Your task to perform on an android device: Add usb-c to usb-a to the cart on amazon Image 0: 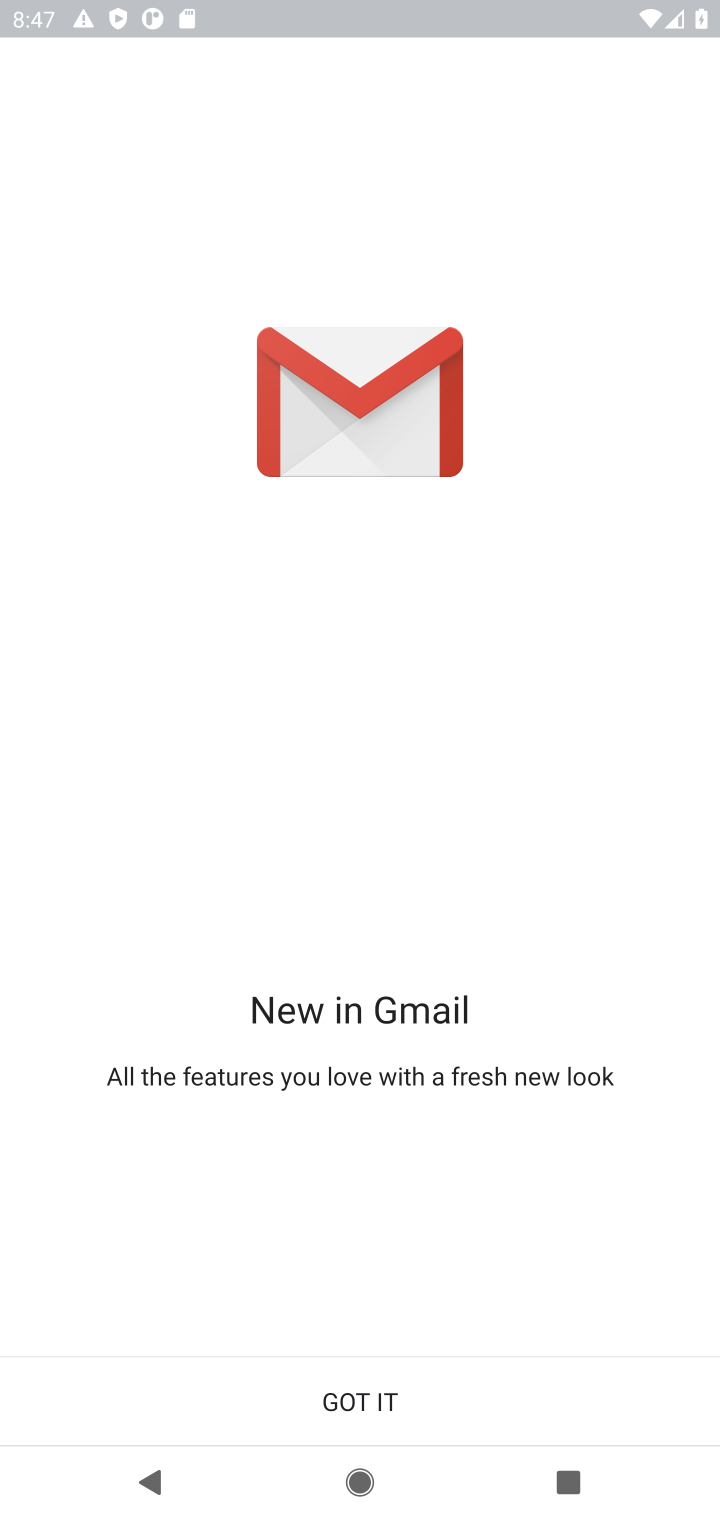
Step 0: press home button
Your task to perform on an android device: Add usb-c to usb-a to the cart on amazon Image 1: 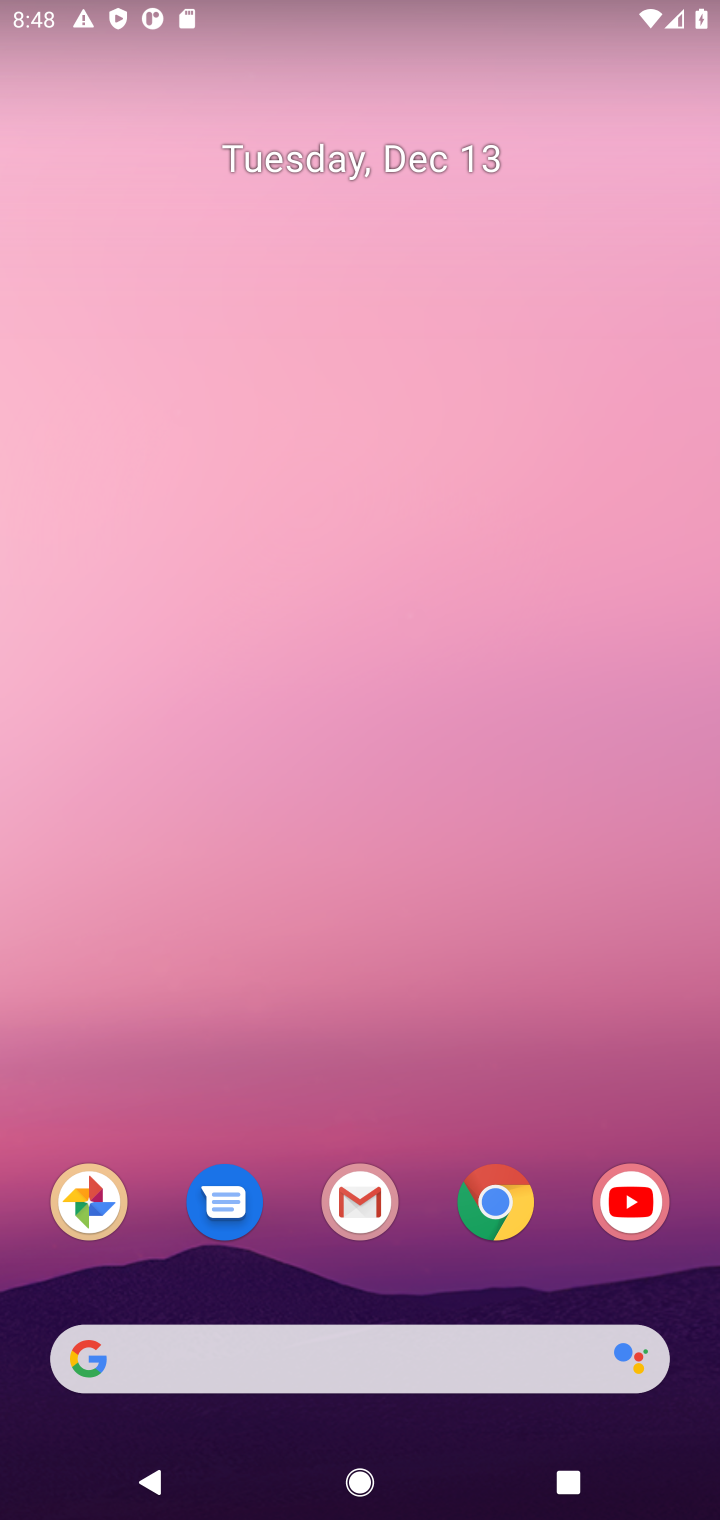
Step 1: click (511, 1218)
Your task to perform on an android device: Add usb-c to usb-a to the cart on amazon Image 2: 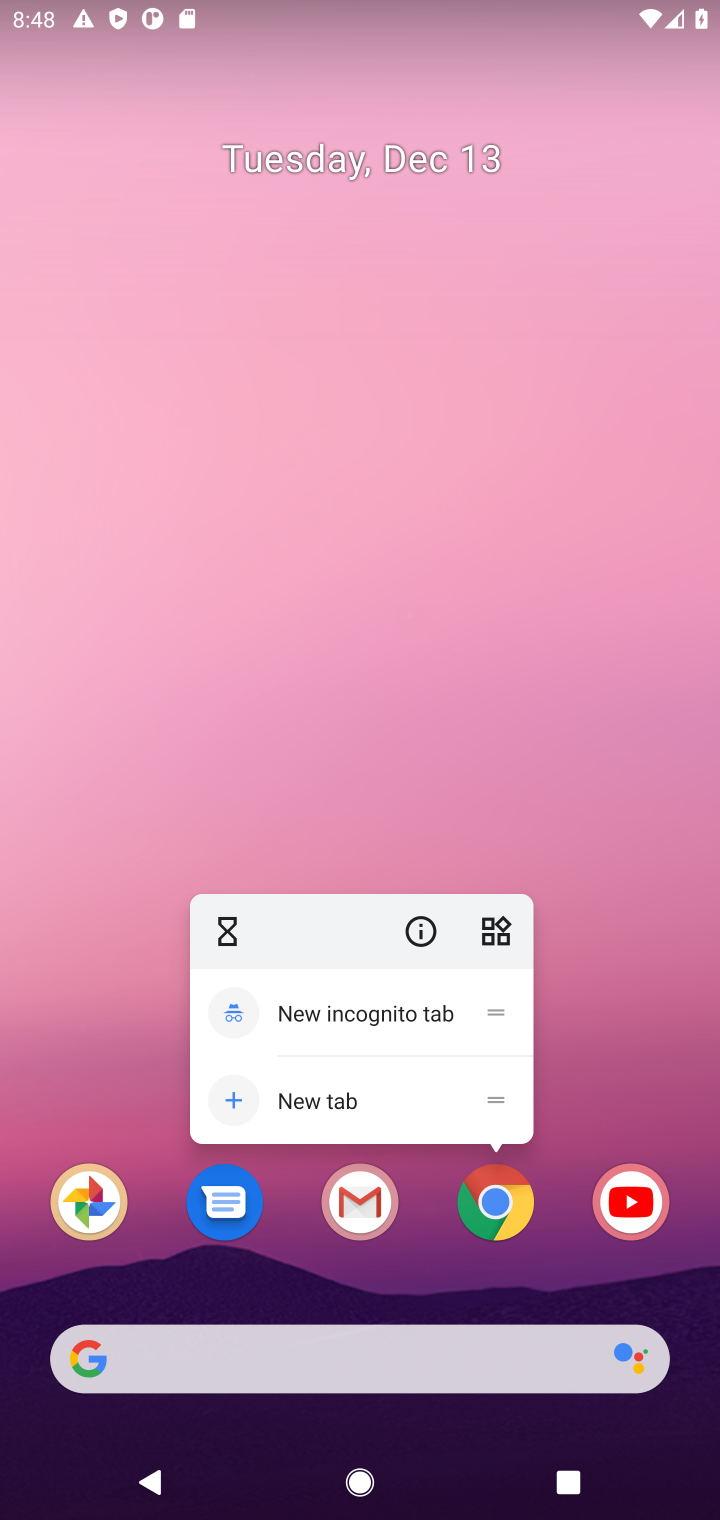
Step 2: click (499, 1216)
Your task to perform on an android device: Add usb-c to usb-a to the cart on amazon Image 3: 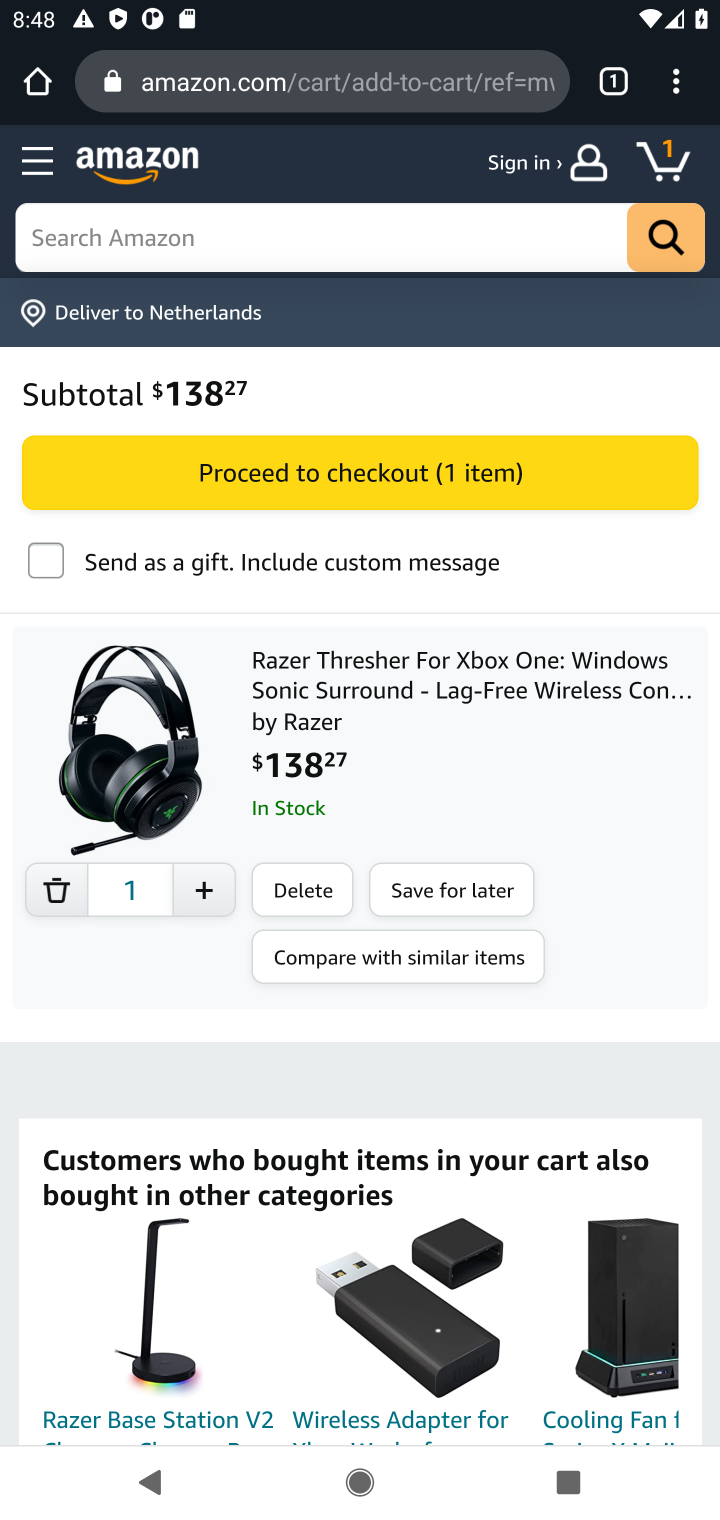
Step 3: click (83, 232)
Your task to perform on an android device: Add usb-c to usb-a to the cart on amazon Image 4: 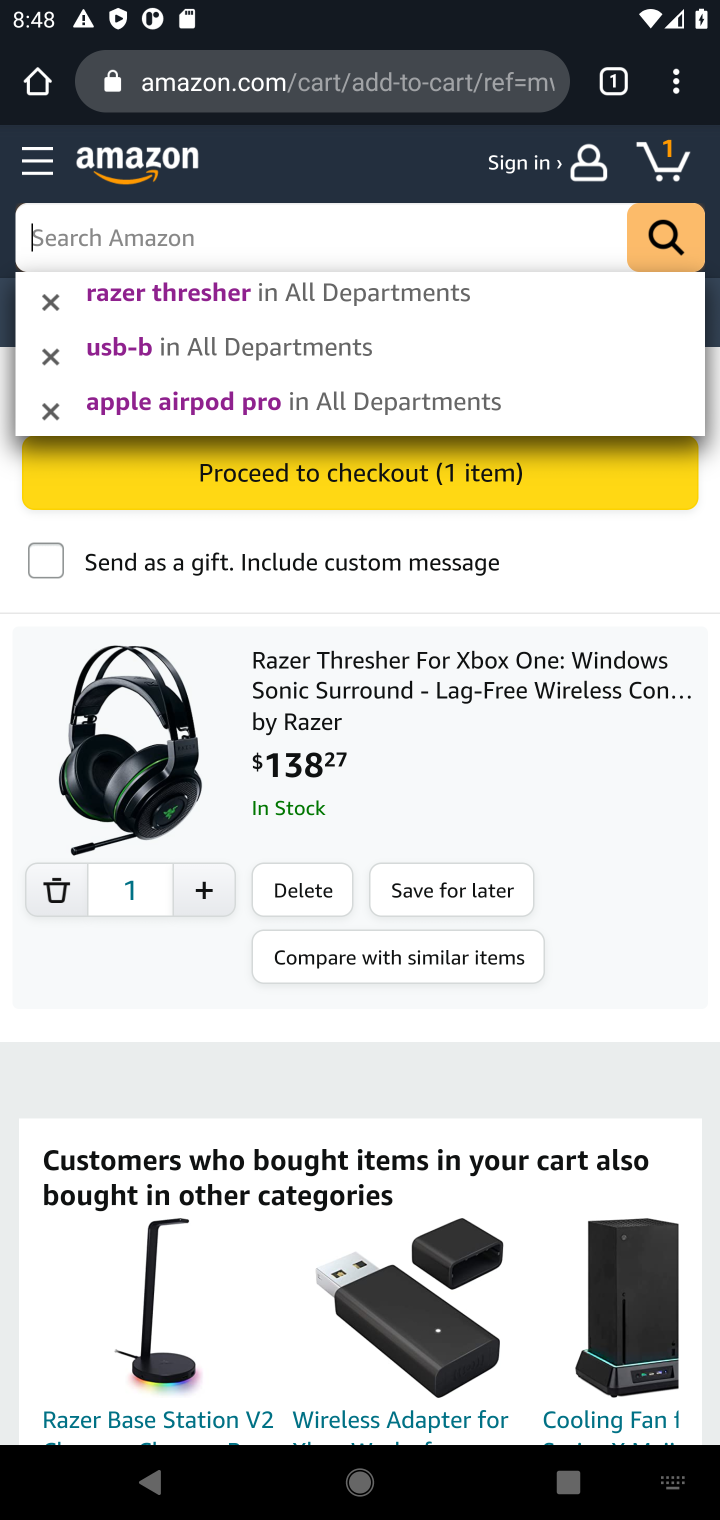
Step 4: type "usb-c to usb-a"
Your task to perform on an android device: Add usb-c to usb-a to the cart on amazon Image 5: 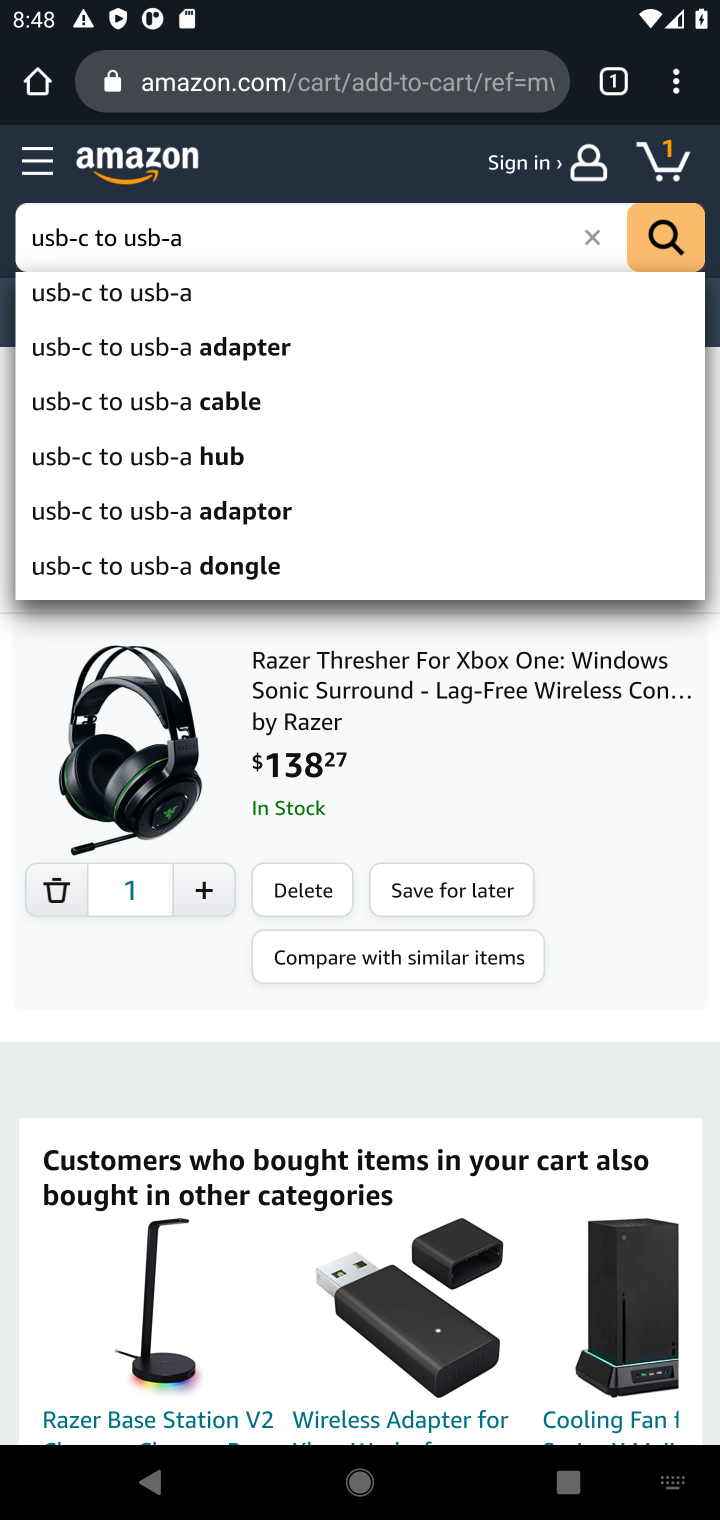
Step 5: click (175, 293)
Your task to perform on an android device: Add usb-c to usb-a to the cart on amazon Image 6: 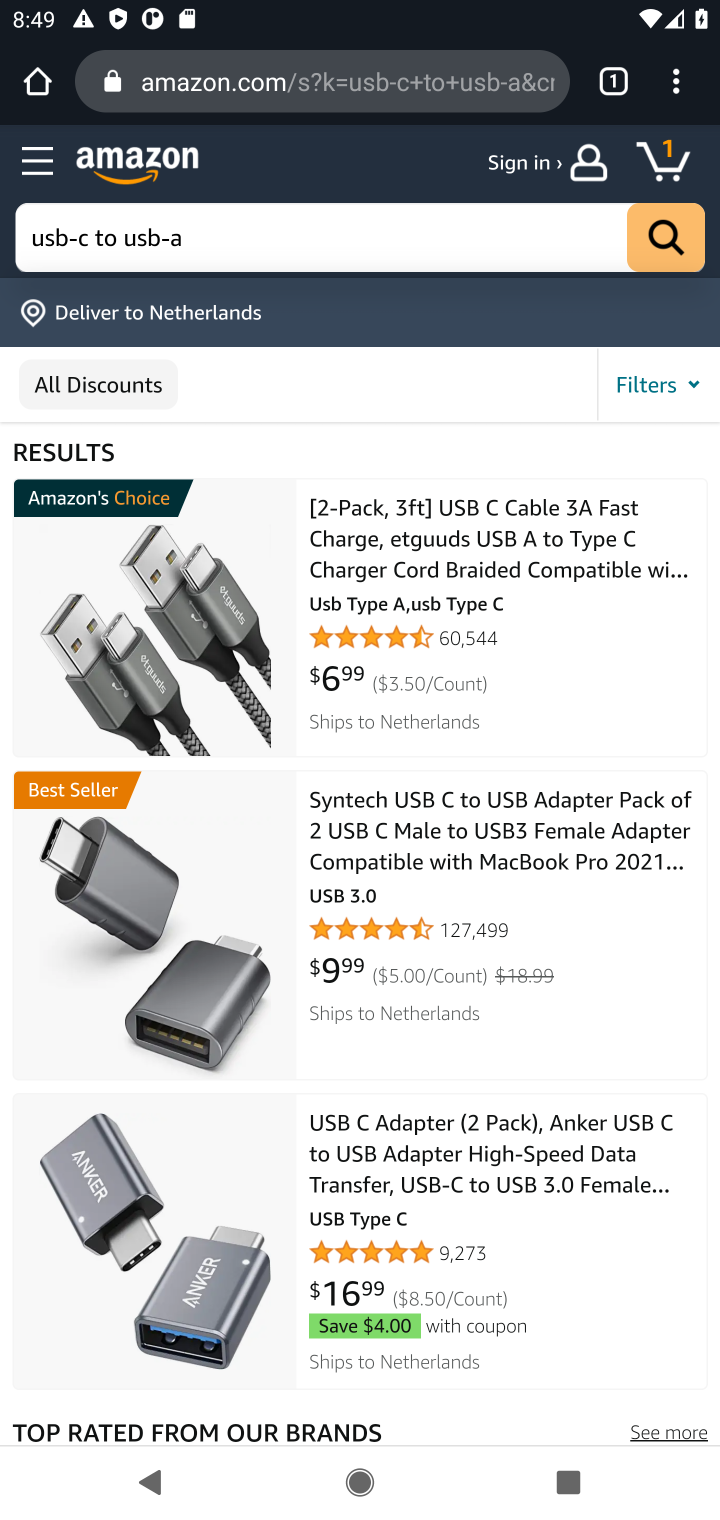
Step 6: drag from (362, 722) to (377, 520)
Your task to perform on an android device: Add usb-c to usb-a to the cart on amazon Image 7: 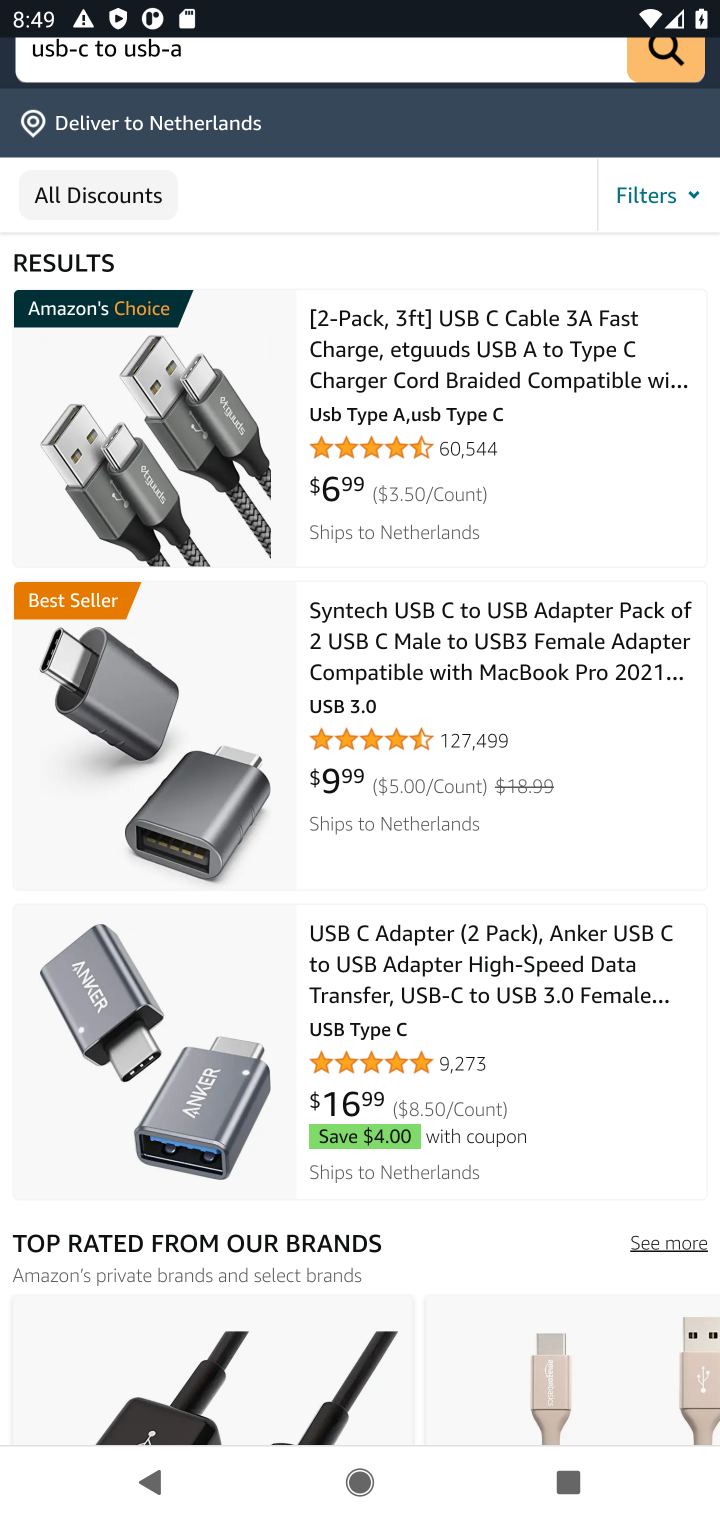
Step 7: drag from (389, 964) to (417, 609)
Your task to perform on an android device: Add usb-c to usb-a to the cart on amazon Image 8: 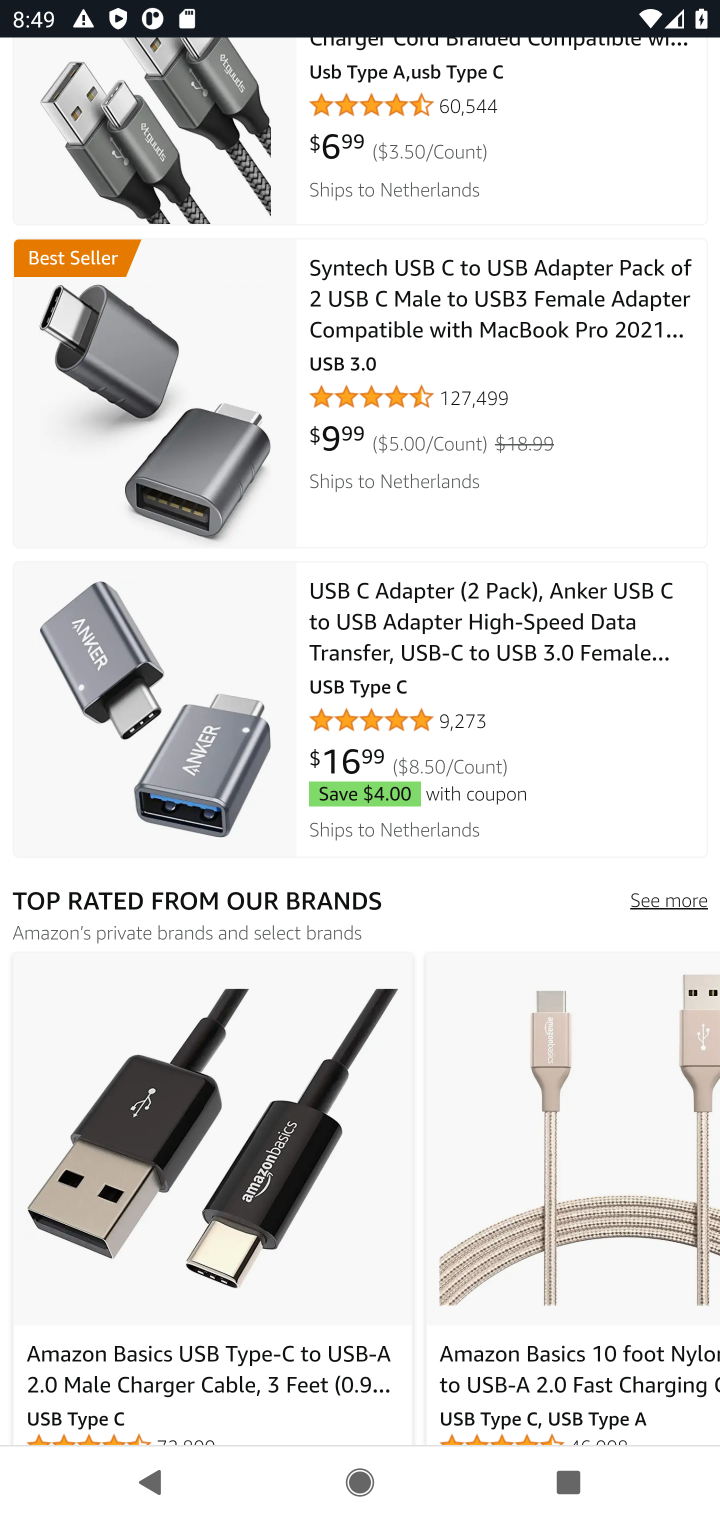
Step 8: drag from (365, 1065) to (375, 518)
Your task to perform on an android device: Add usb-c to usb-a to the cart on amazon Image 9: 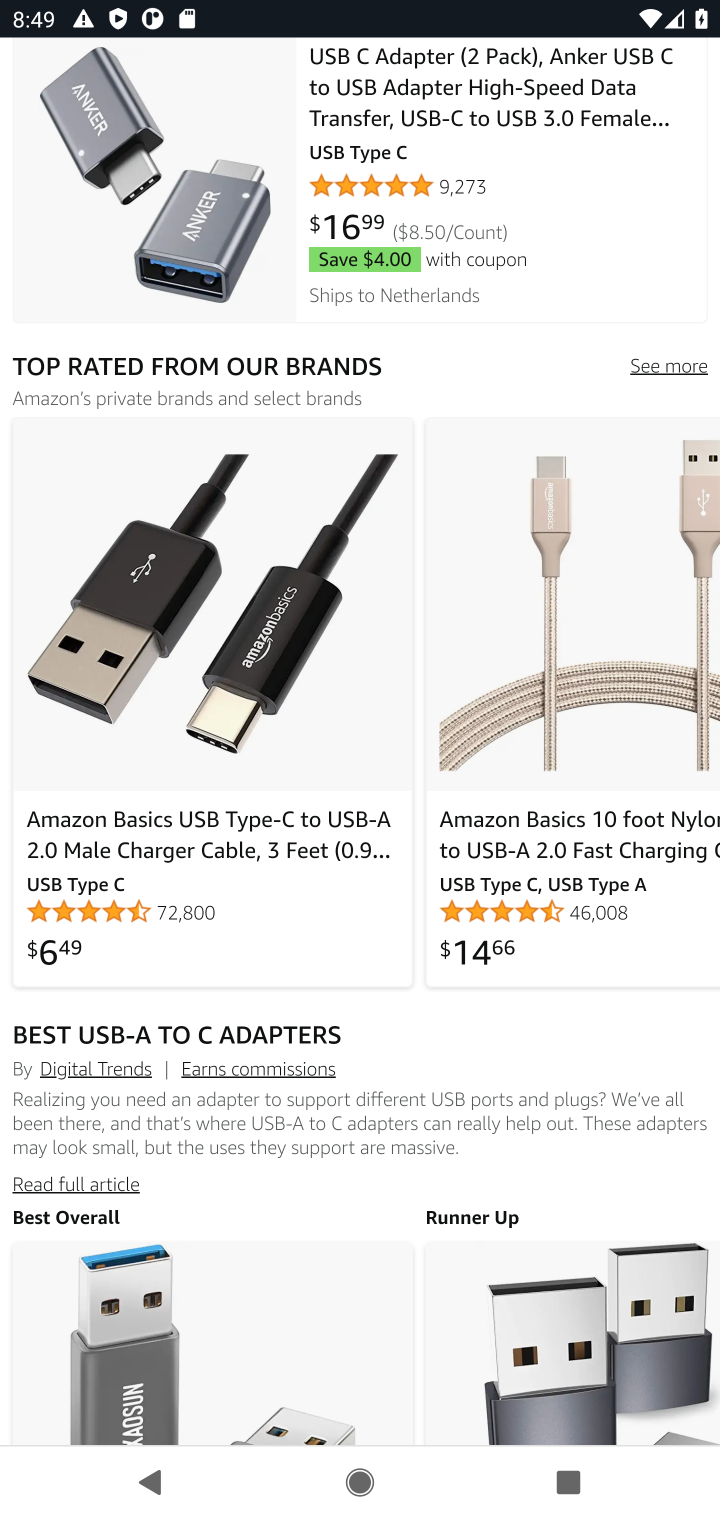
Step 9: drag from (319, 1123) to (317, 437)
Your task to perform on an android device: Add usb-c to usb-a to the cart on amazon Image 10: 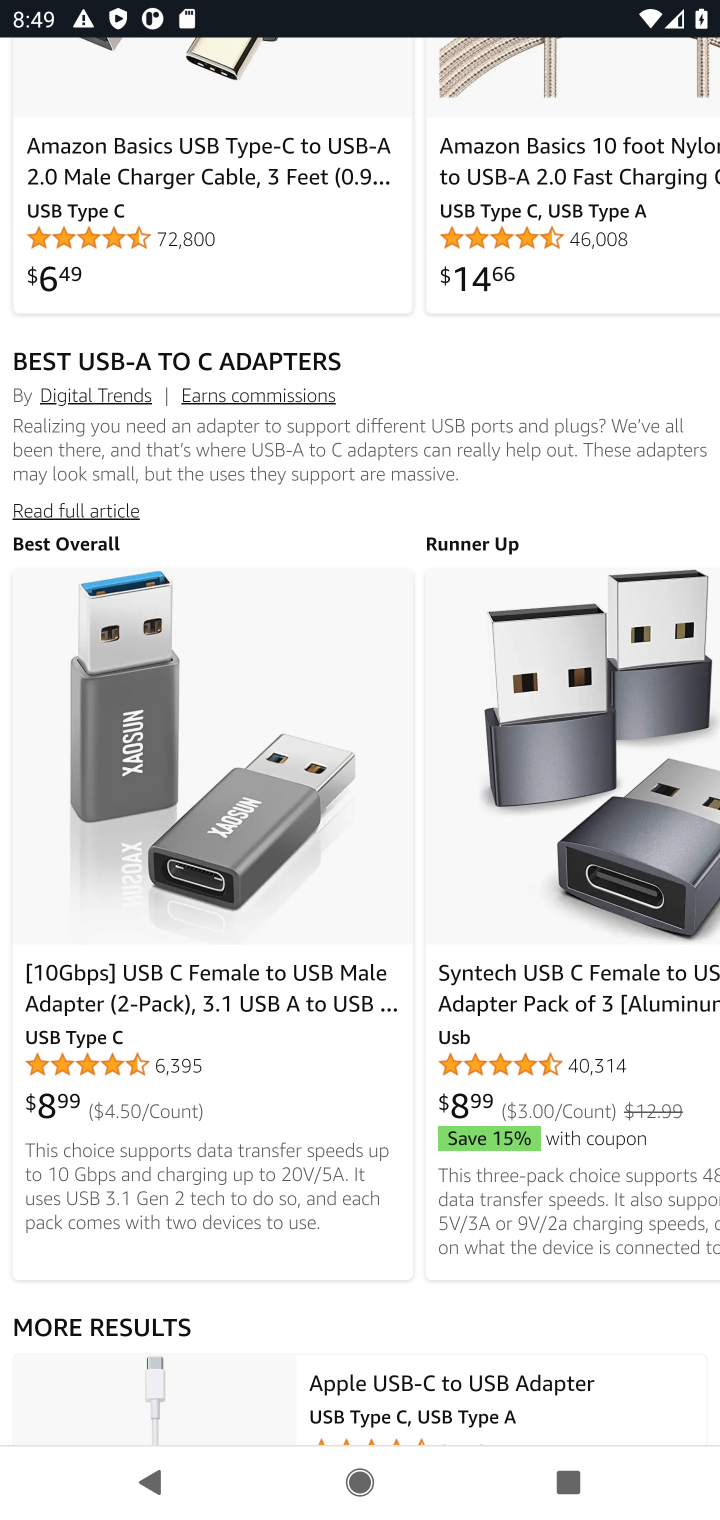
Step 10: drag from (270, 956) to (277, 453)
Your task to perform on an android device: Add usb-c to usb-a to the cart on amazon Image 11: 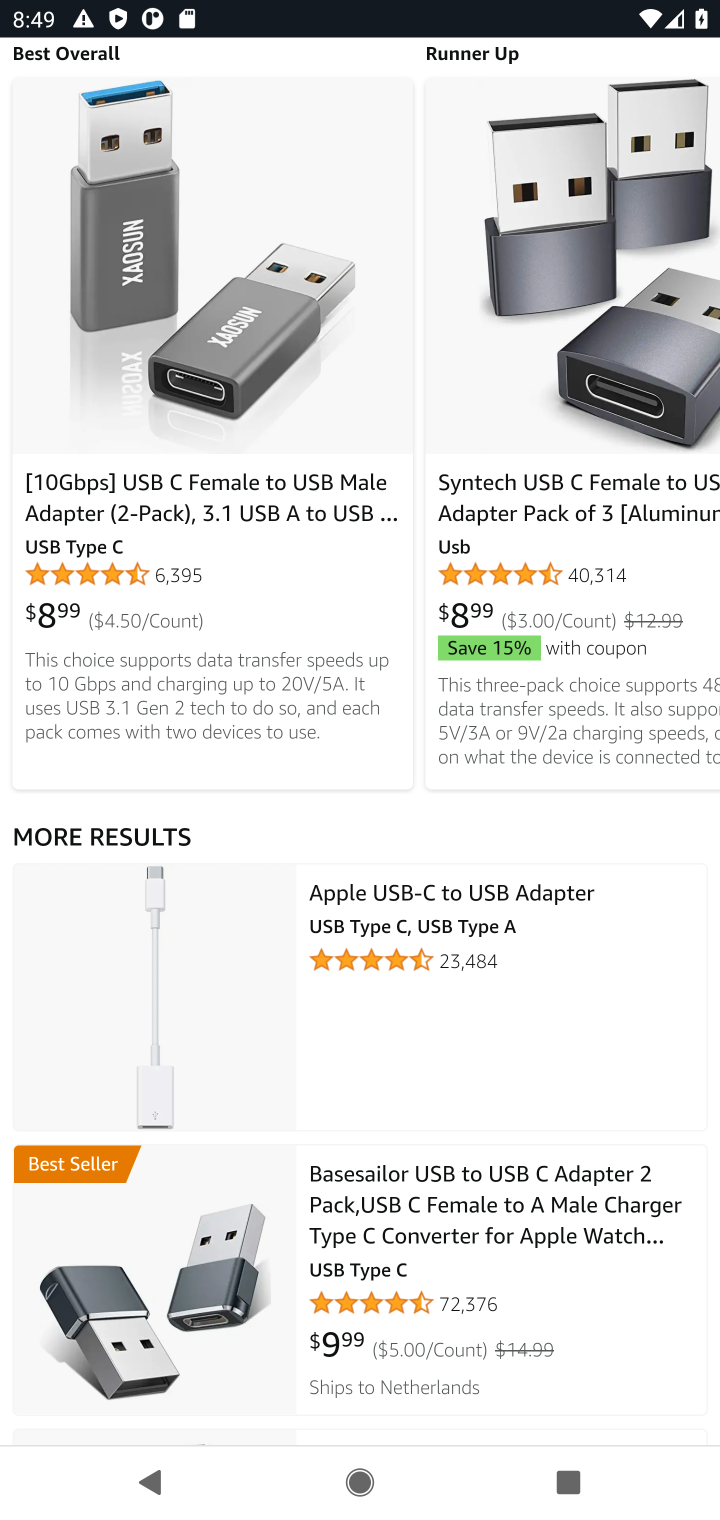
Step 11: drag from (281, 1273) to (288, 872)
Your task to perform on an android device: Add usb-c to usb-a to the cart on amazon Image 12: 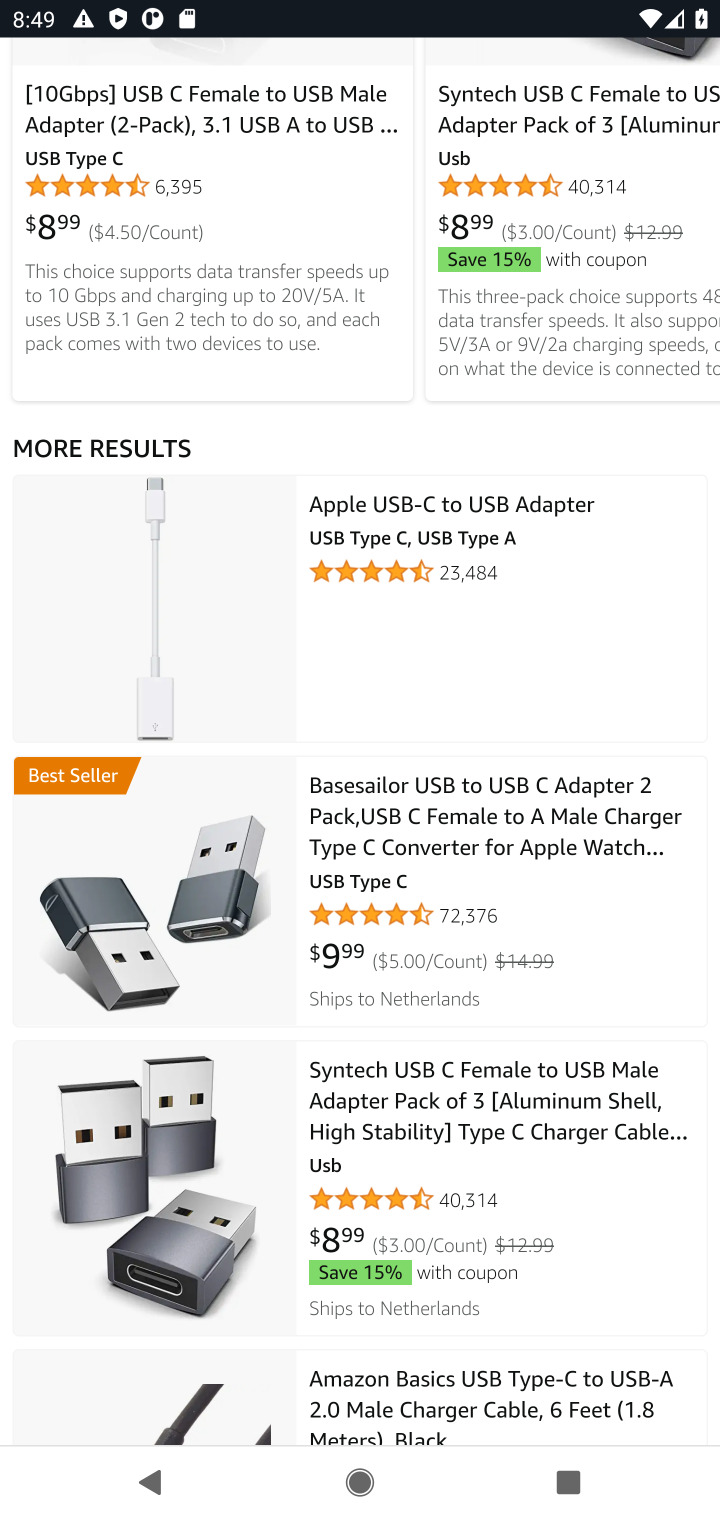
Step 12: drag from (291, 1196) to (295, 646)
Your task to perform on an android device: Add usb-c to usb-a to the cart on amazon Image 13: 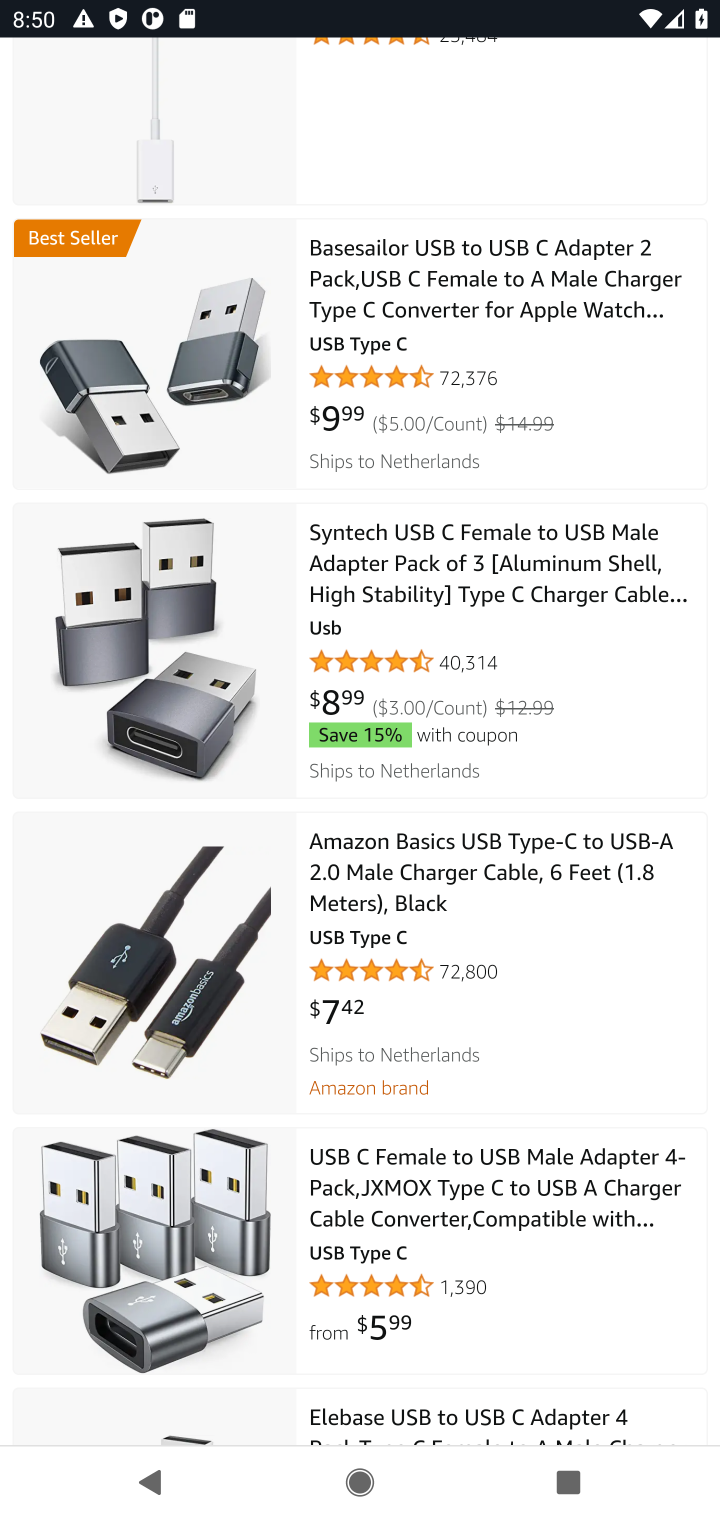
Step 13: click (370, 874)
Your task to perform on an android device: Add usb-c to usb-a to the cart on amazon Image 14: 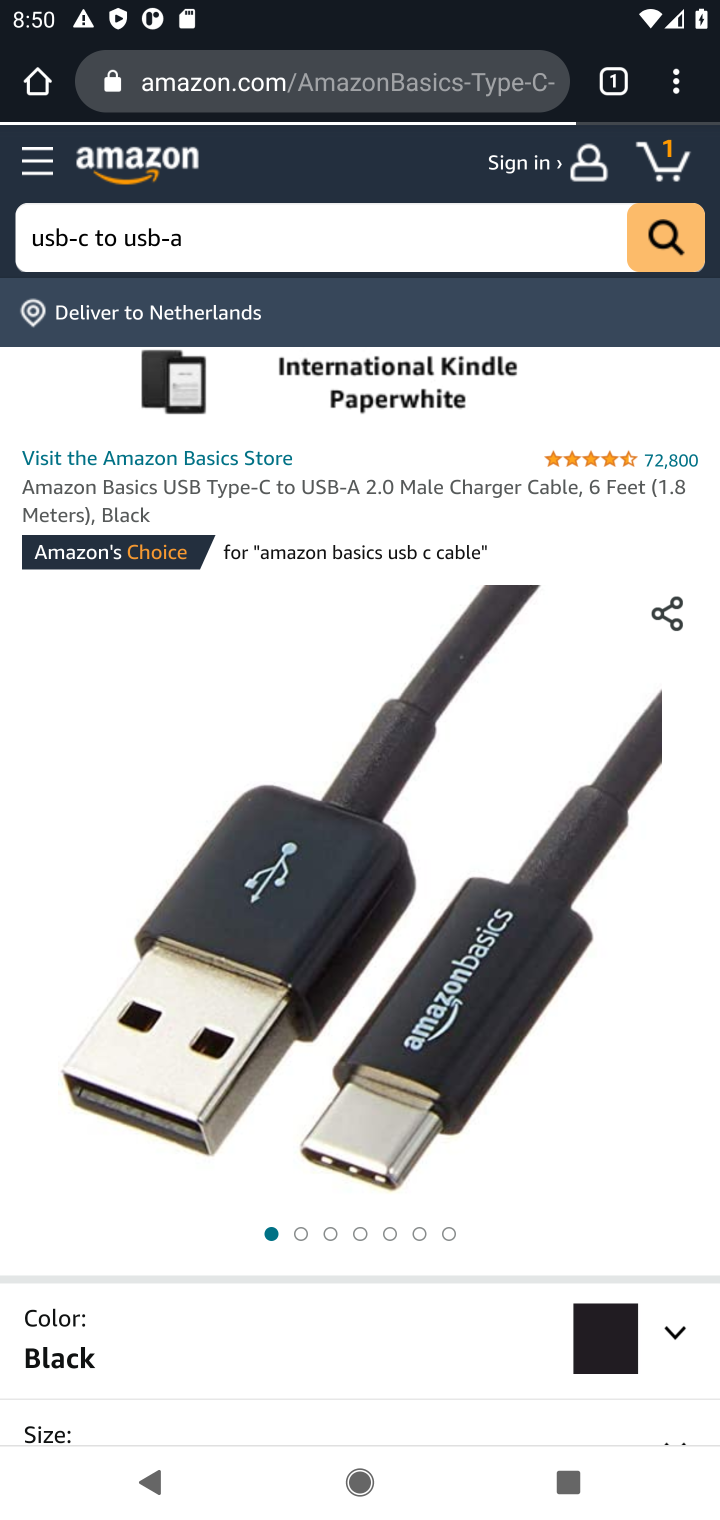
Step 14: drag from (452, 603) to (466, 318)
Your task to perform on an android device: Add usb-c to usb-a to the cart on amazon Image 15: 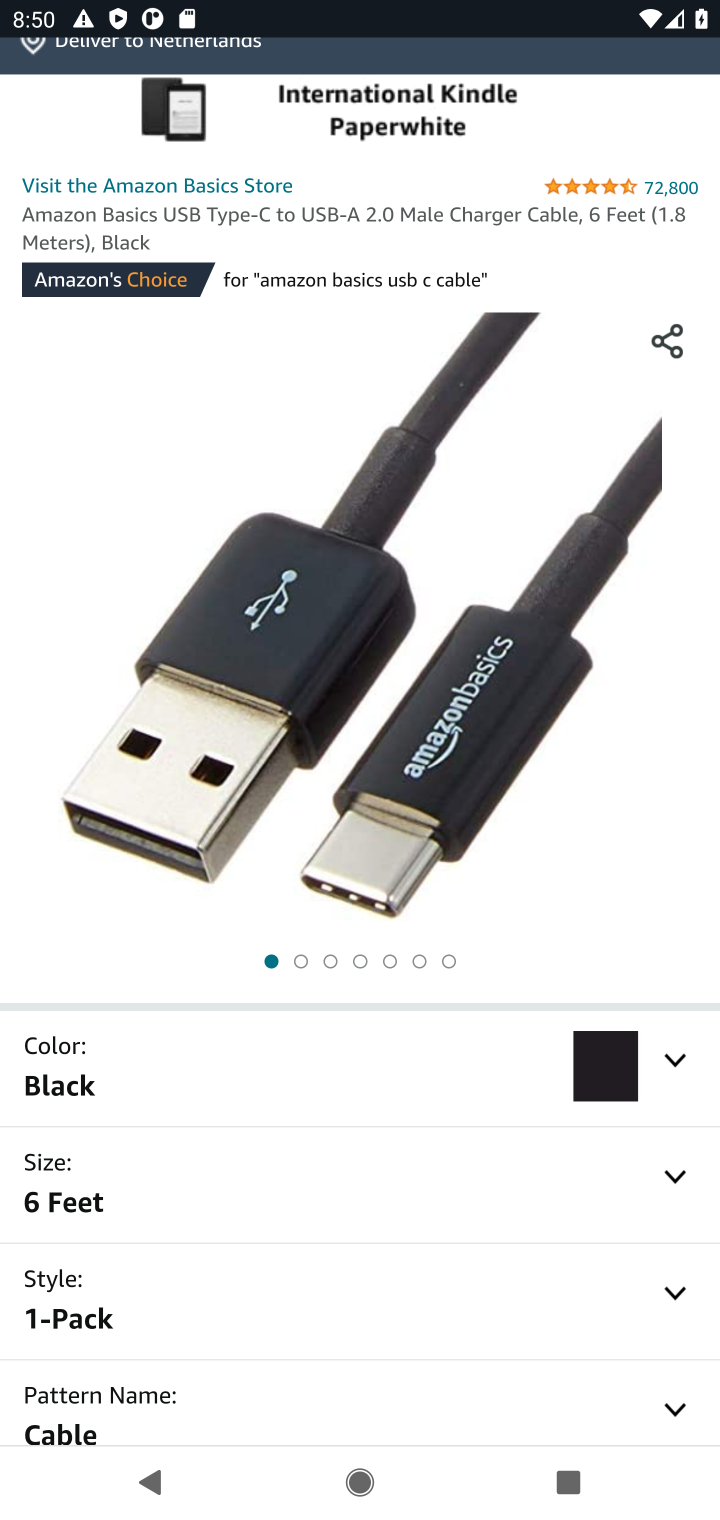
Step 15: drag from (396, 748) to (405, 401)
Your task to perform on an android device: Add usb-c to usb-a to the cart on amazon Image 16: 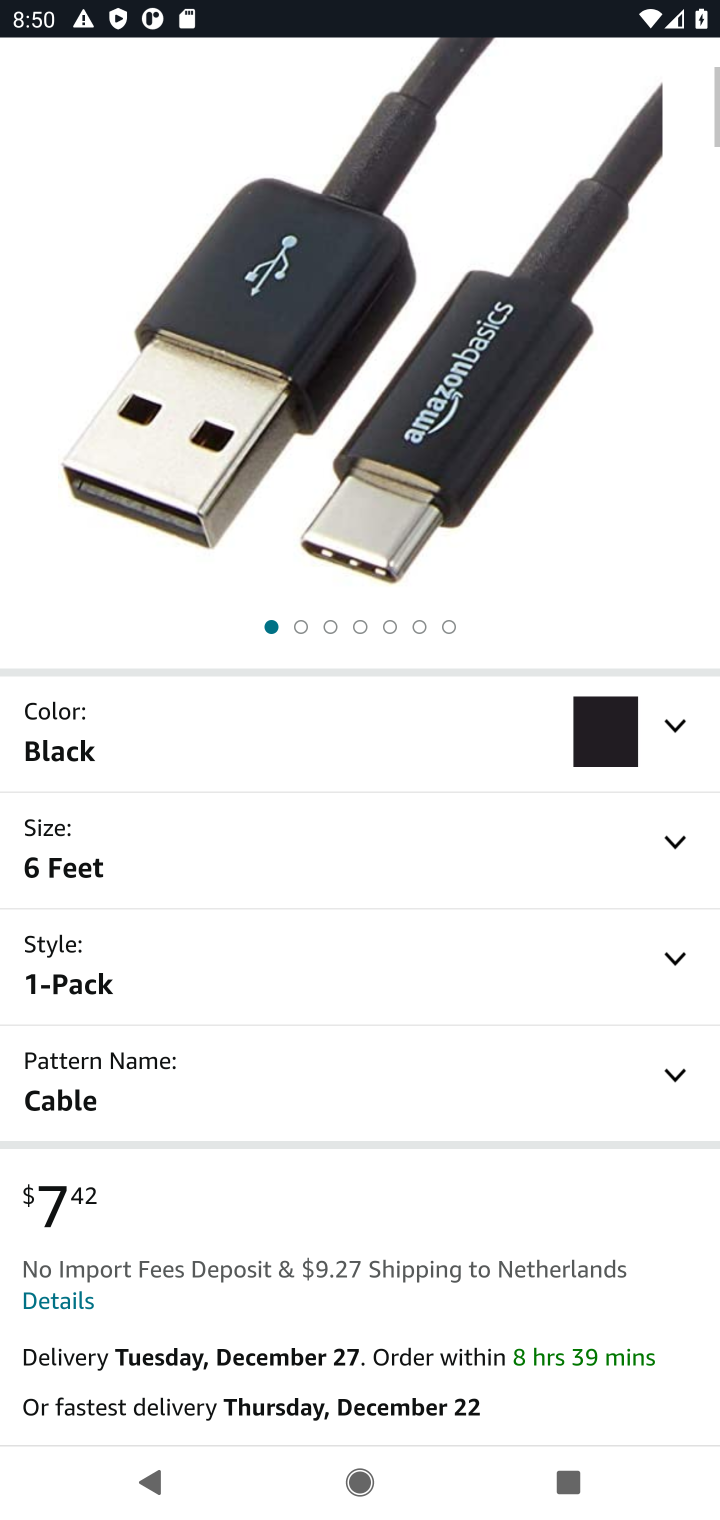
Step 16: drag from (364, 1115) to (368, 535)
Your task to perform on an android device: Add usb-c to usb-a to the cart on amazon Image 17: 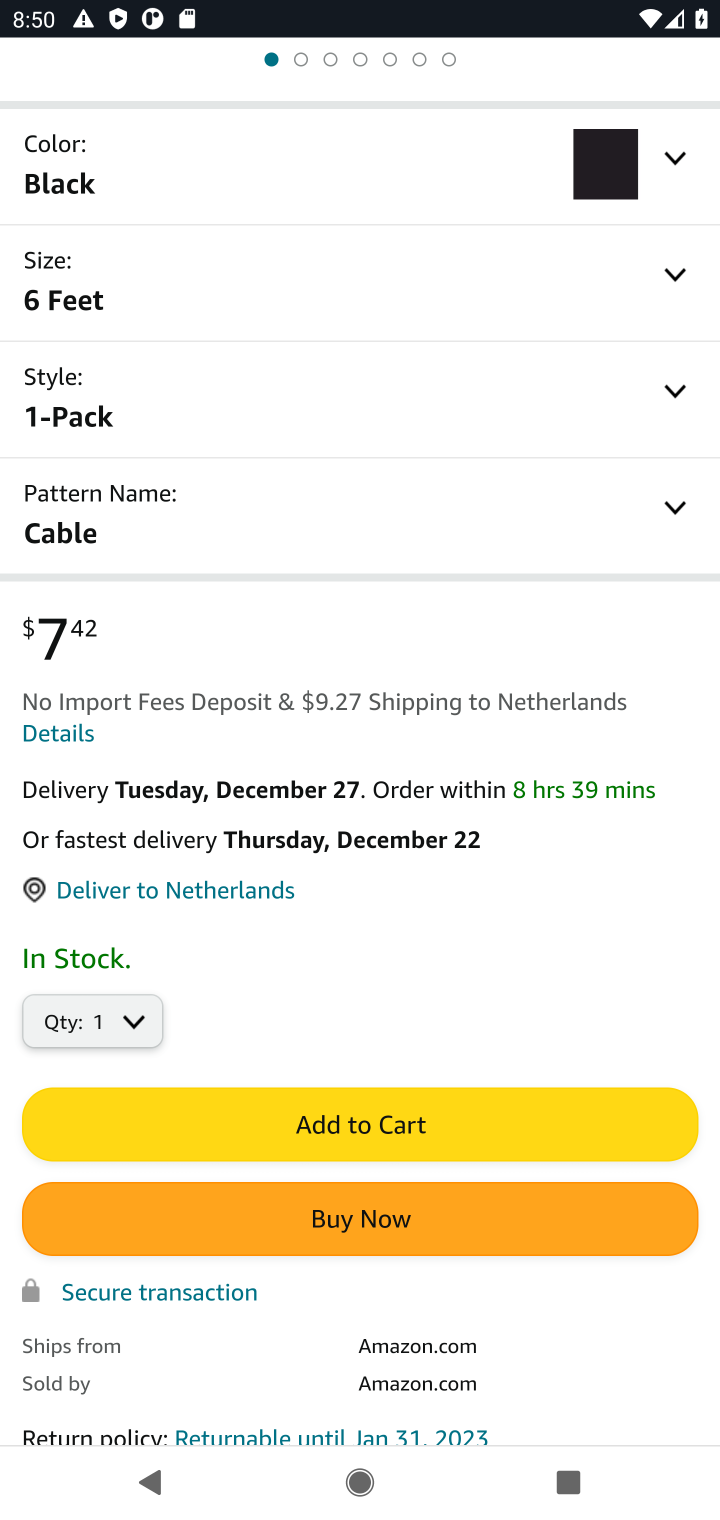
Step 17: click (372, 1107)
Your task to perform on an android device: Add usb-c to usb-a to the cart on amazon Image 18: 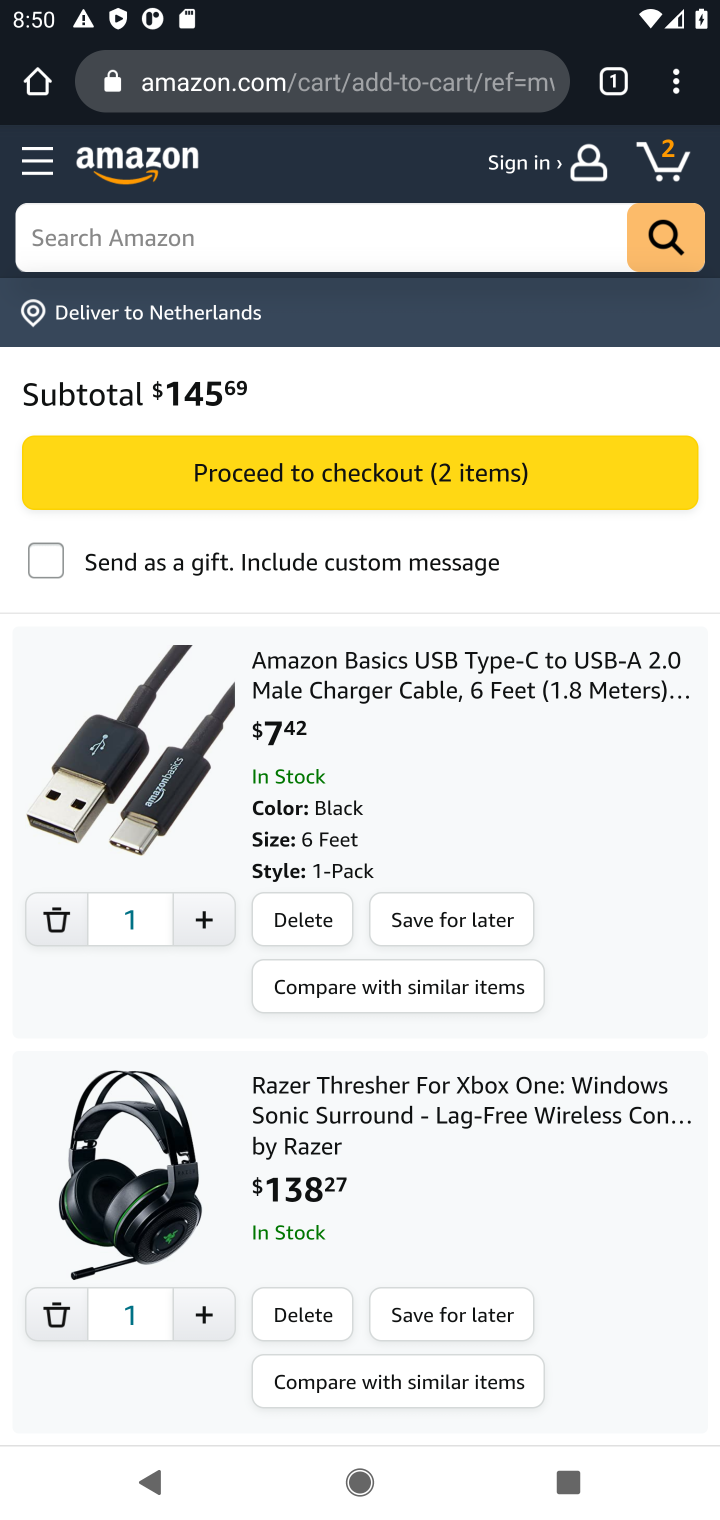
Step 18: task complete